Your task to perform on an android device: Open CNN.com Image 0: 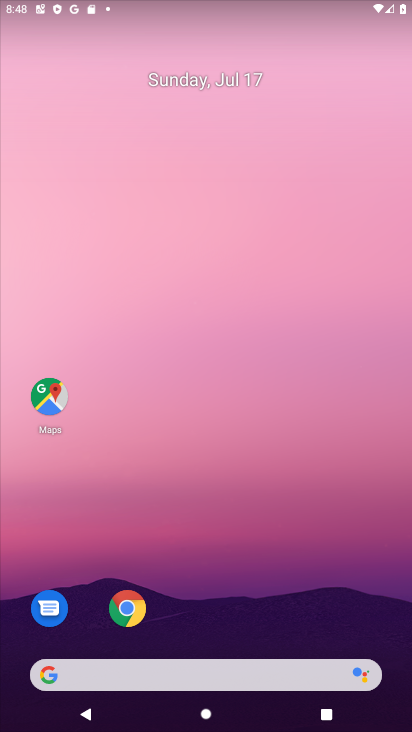
Step 0: drag from (170, 667) to (170, 329)
Your task to perform on an android device: Open CNN.com Image 1: 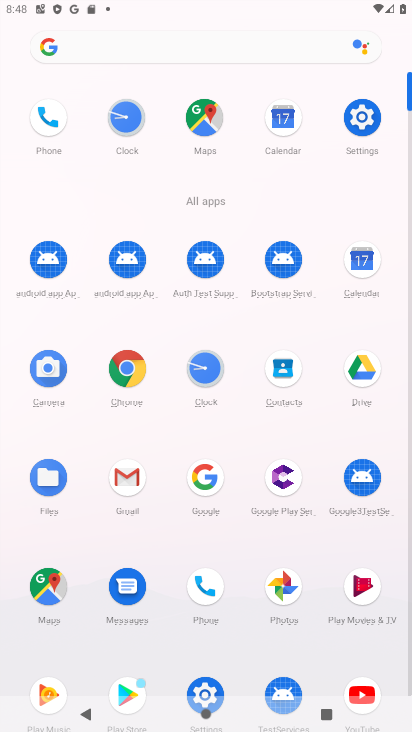
Step 1: click (204, 472)
Your task to perform on an android device: Open CNN.com Image 2: 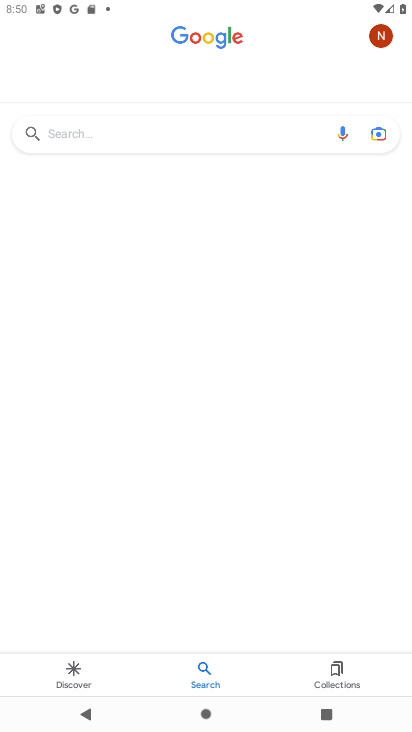
Step 2: click (101, 131)
Your task to perform on an android device: Open CNN.com Image 3: 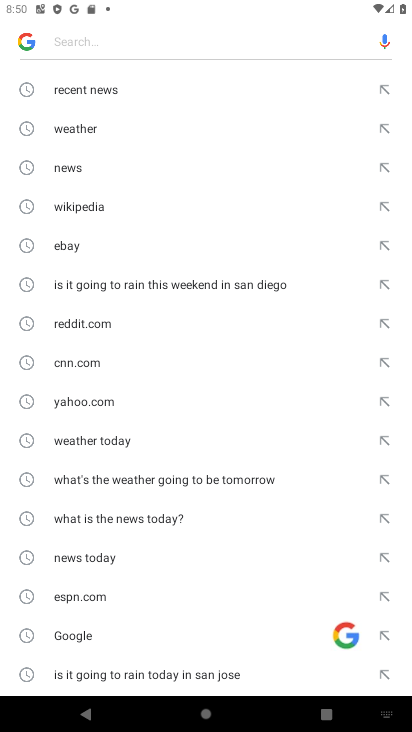
Step 3: drag from (102, 600) to (98, 179)
Your task to perform on an android device: Open CNN.com Image 4: 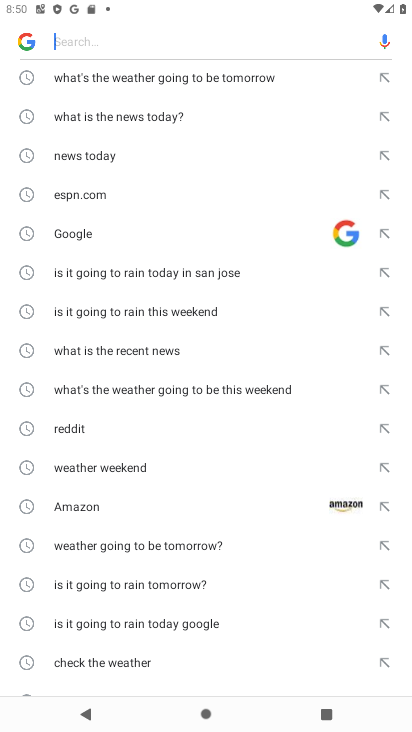
Step 4: drag from (90, 109) to (97, 546)
Your task to perform on an android device: Open CNN.com Image 5: 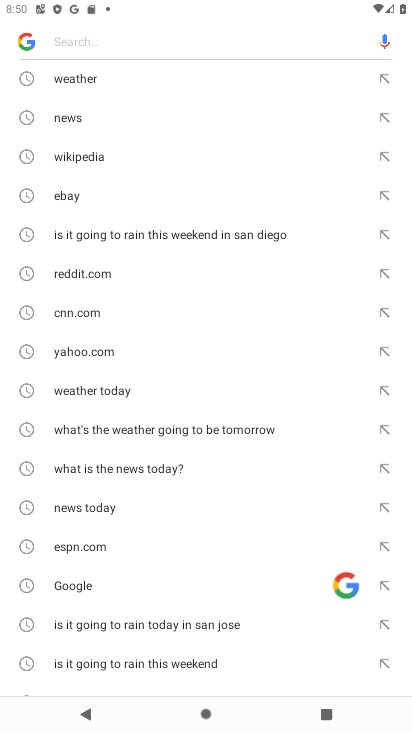
Step 5: click (82, 314)
Your task to perform on an android device: Open CNN.com Image 6: 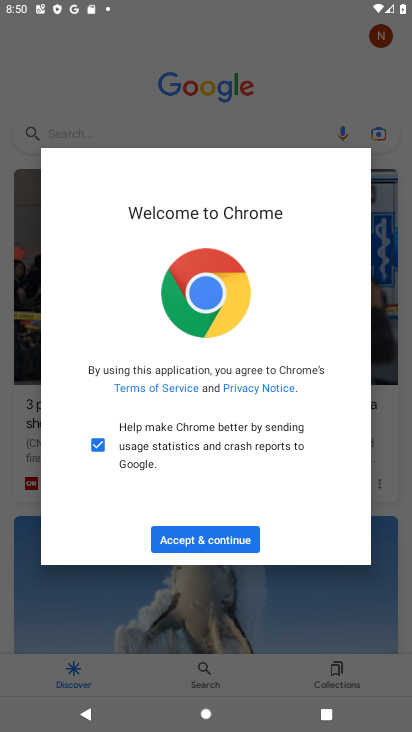
Step 6: click (222, 545)
Your task to perform on an android device: Open CNN.com Image 7: 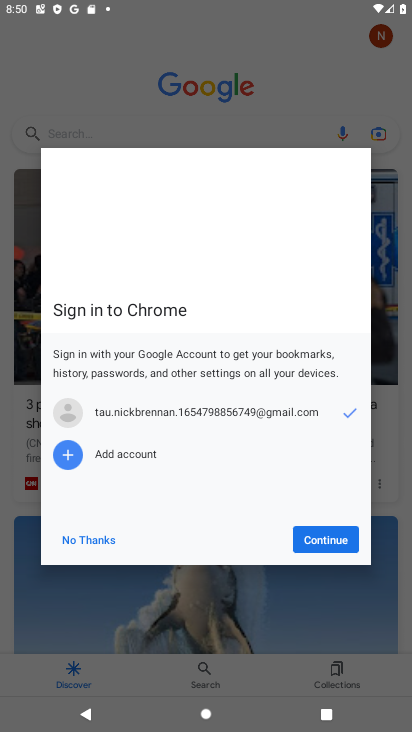
Step 7: click (324, 541)
Your task to perform on an android device: Open CNN.com Image 8: 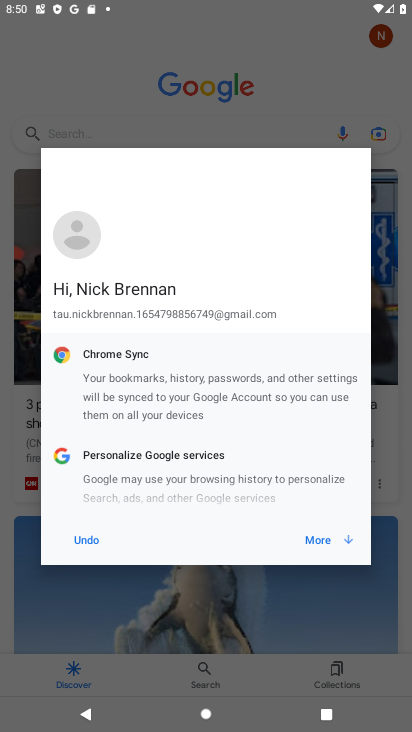
Step 8: click (324, 541)
Your task to perform on an android device: Open CNN.com Image 9: 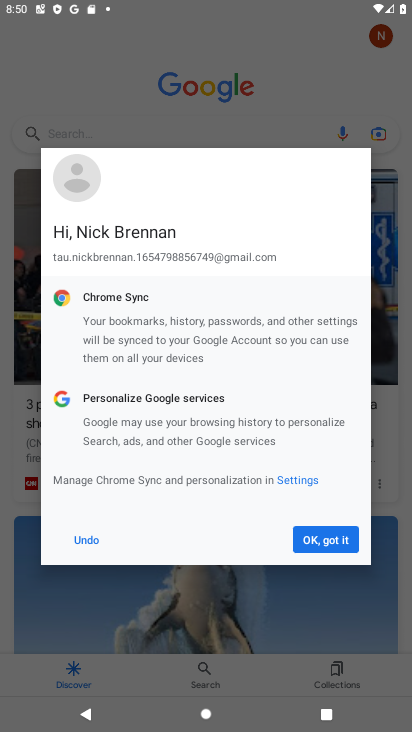
Step 9: click (324, 541)
Your task to perform on an android device: Open CNN.com Image 10: 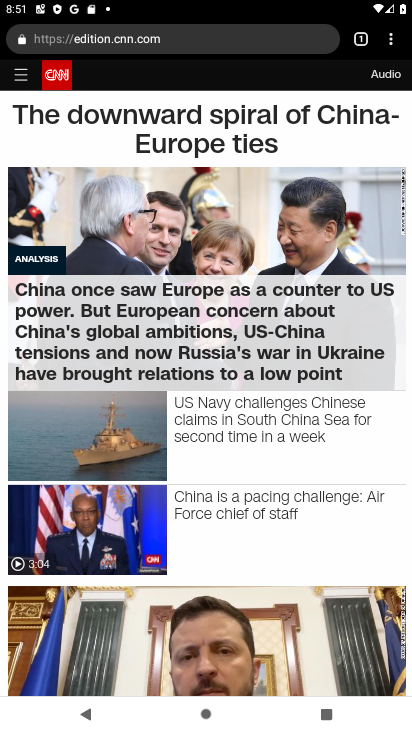
Step 10: task complete